Your task to perform on an android device: Show me productivity apps on the Play Store Image 0: 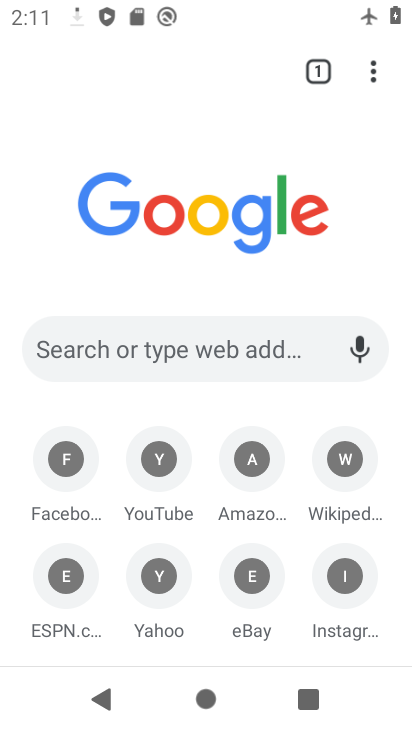
Step 0: press home button
Your task to perform on an android device: Show me productivity apps on the Play Store Image 1: 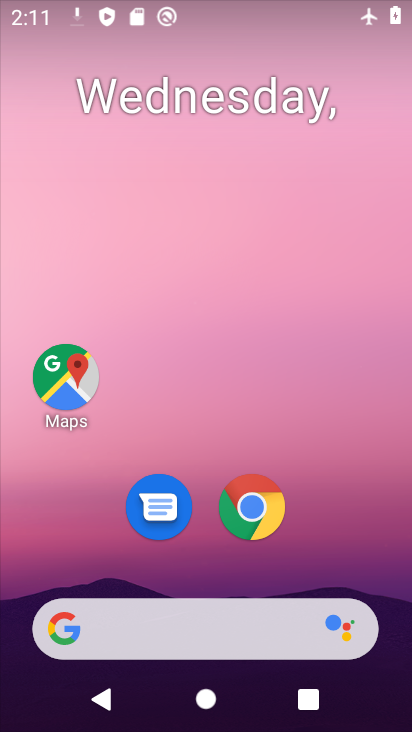
Step 1: drag from (345, 498) to (356, 73)
Your task to perform on an android device: Show me productivity apps on the Play Store Image 2: 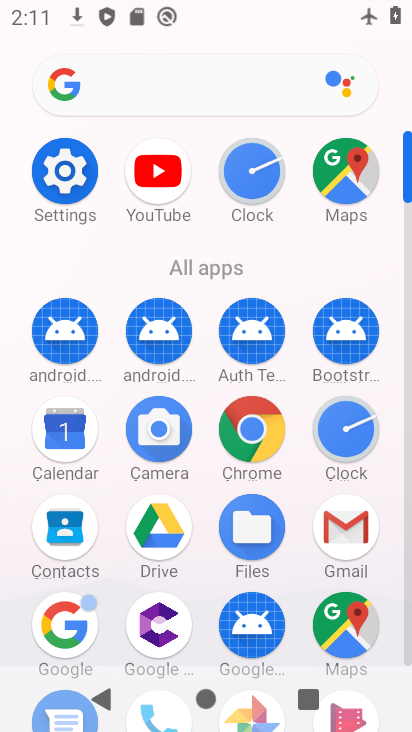
Step 2: drag from (213, 274) to (212, 92)
Your task to perform on an android device: Show me productivity apps on the Play Store Image 3: 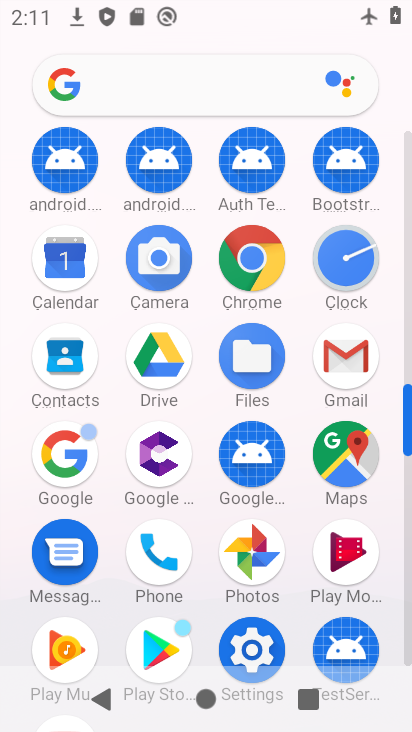
Step 3: click (161, 645)
Your task to perform on an android device: Show me productivity apps on the Play Store Image 4: 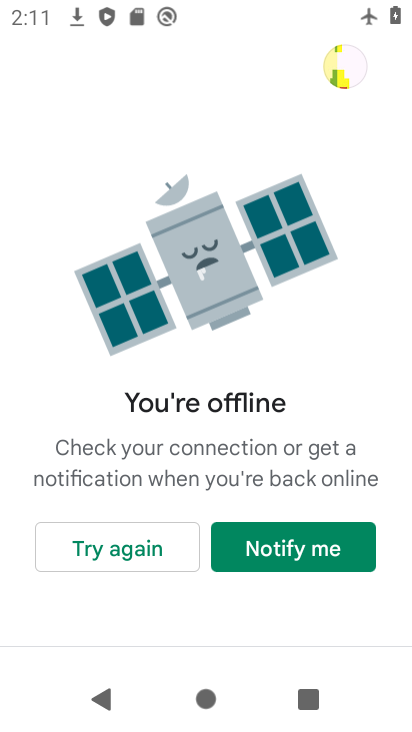
Step 4: click (173, 541)
Your task to perform on an android device: Show me productivity apps on the Play Store Image 5: 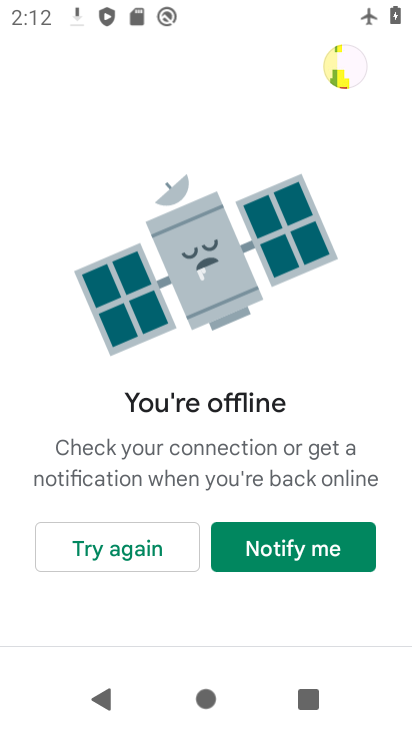
Step 5: click (173, 541)
Your task to perform on an android device: Show me productivity apps on the Play Store Image 6: 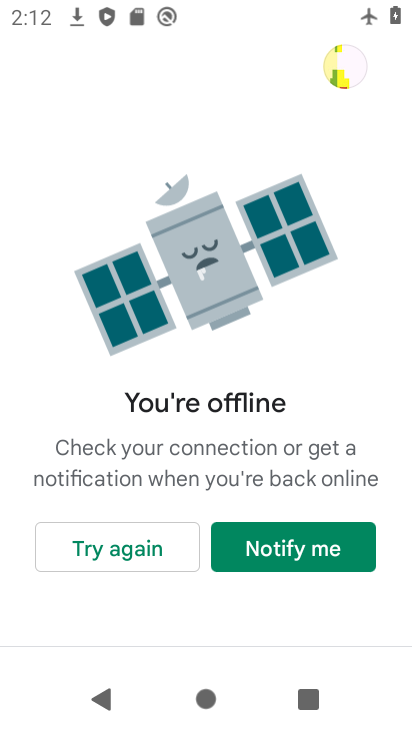
Step 6: task complete